Your task to perform on an android device: Go to Amazon Image 0: 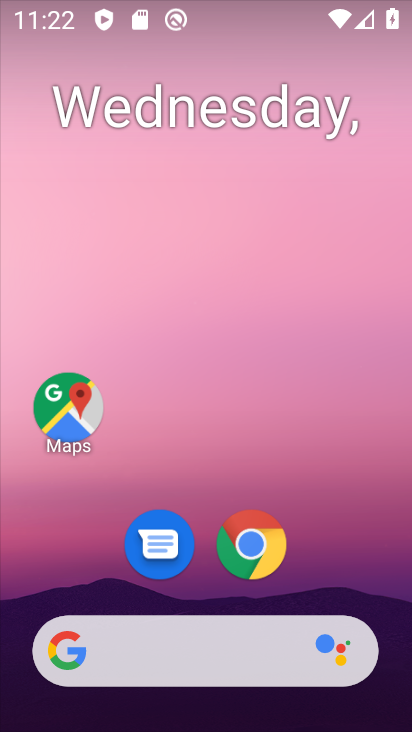
Step 0: drag from (297, 471) to (256, 298)
Your task to perform on an android device: Go to Amazon Image 1: 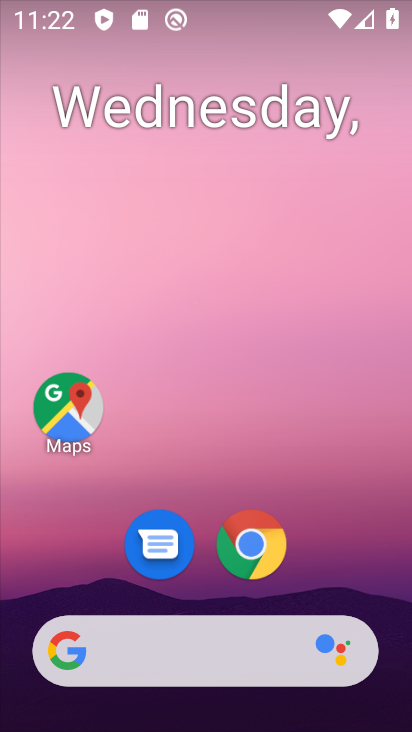
Step 1: click (261, 575)
Your task to perform on an android device: Go to Amazon Image 2: 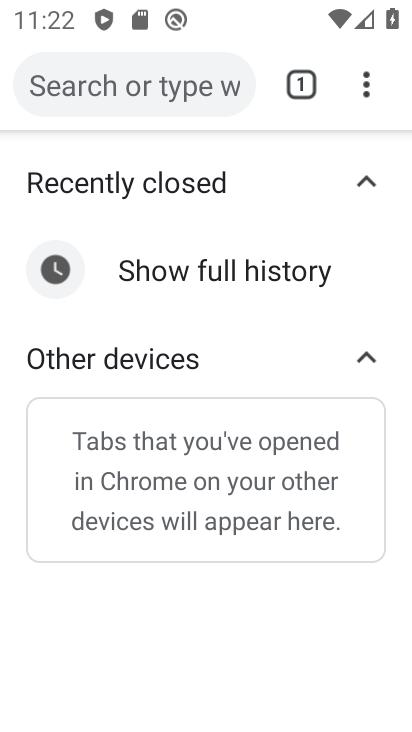
Step 2: press back button
Your task to perform on an android device: Go to Amazon Image 3: 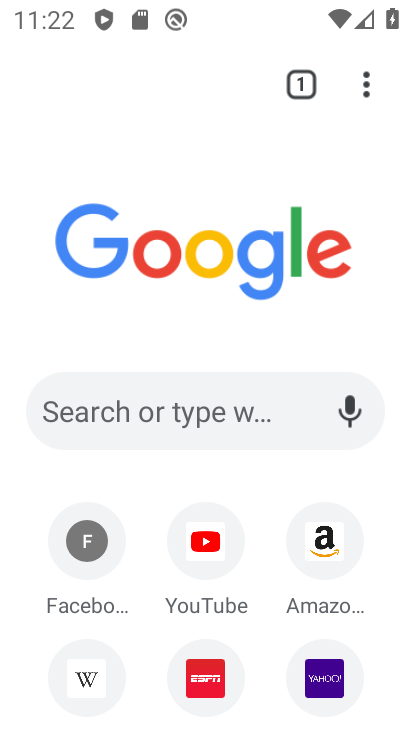
Step 3: click (338, 558)
Your task to perform on an android device: Go to Amazon Image 4: 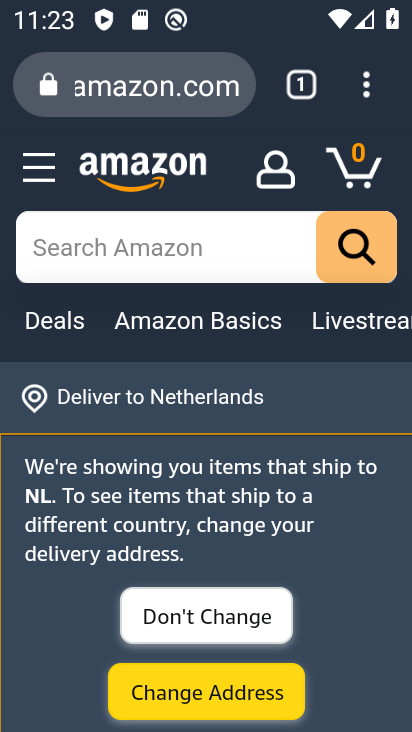
Step 4: task complete